Your task to perform on an android device: toggle notifications settings in the gmail app Image 0: 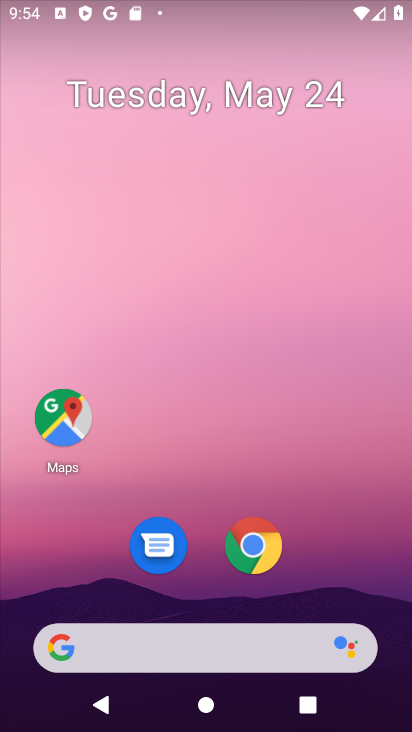
Step 0: drag from (210, 474) to (253, 0)
Your task to perform on an android device: toggle notifications settings in the gmail app Image 1: 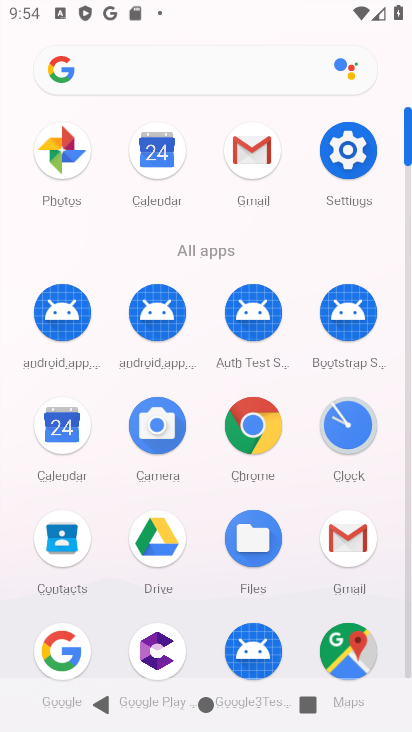
Step 1: click (246, 154)
Your task to perform on an android device: toggle notifications settings in the gmail app Image 2: 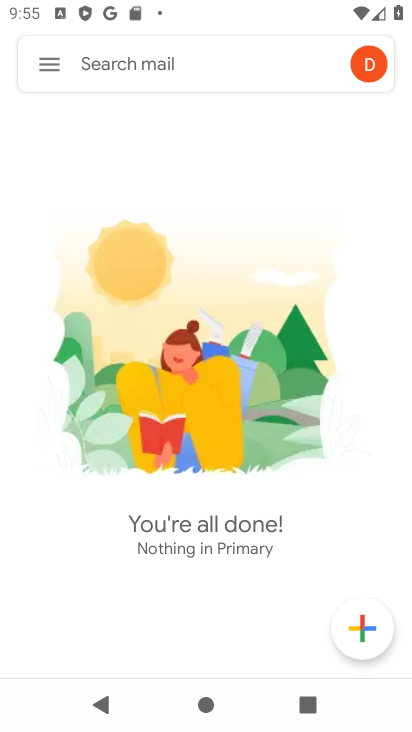
Step 2: click (53, 64)
Your task to perform on an android device: toggle notifications settings in the gmail app Image 3: 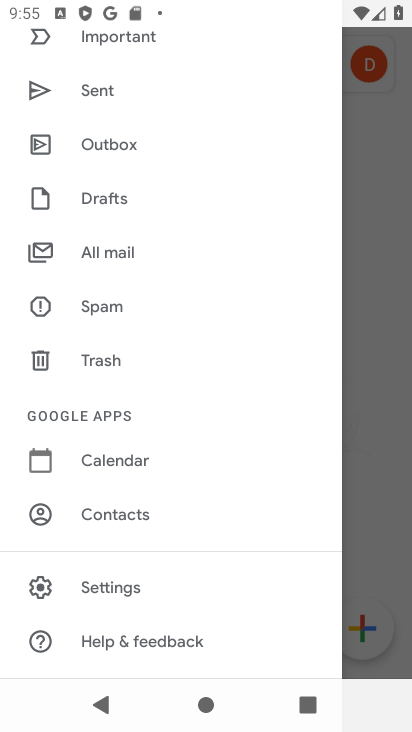
Step 3: click (130, 580)
Your task to perform on an android device: toggle notifications settings in the gmail app Image 4: 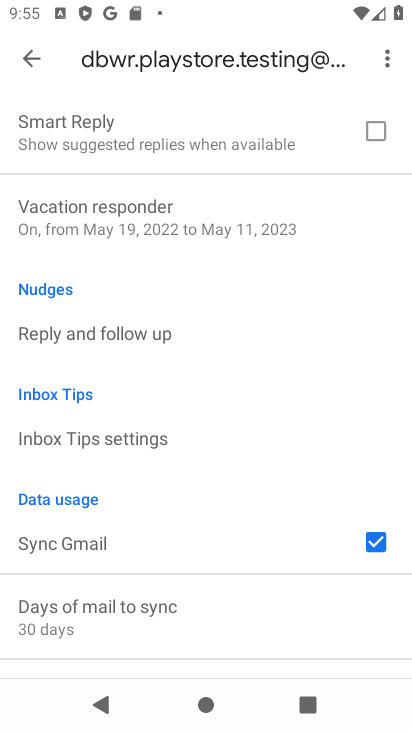
Step 4: drag from (246, 270) to (223, 704)
Your task to perform on an android device: toggle notifications settings in the gmail app Image 5: 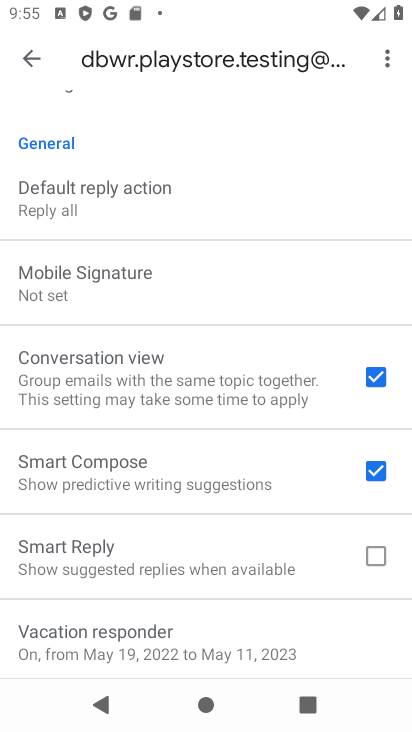
Step 5: drag from (209, 306) to (221, 605)
Your task to perform on an android device: toggle notifications settings in the gmail app Image 6: 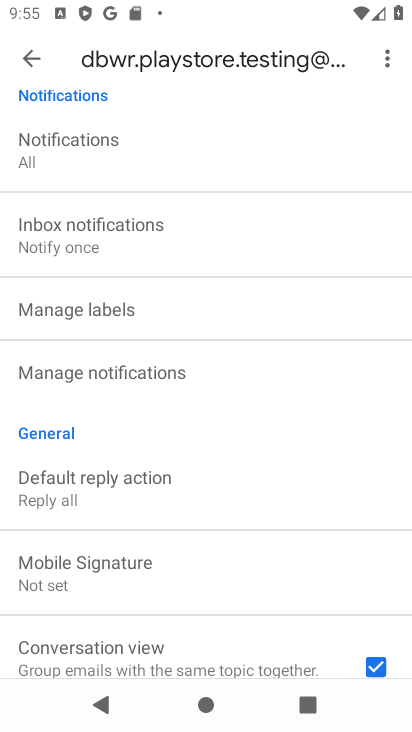
Step 6: click (213, 370)
Your task to perform on an android device: toggle notifications settings in the gmail app Image 7: 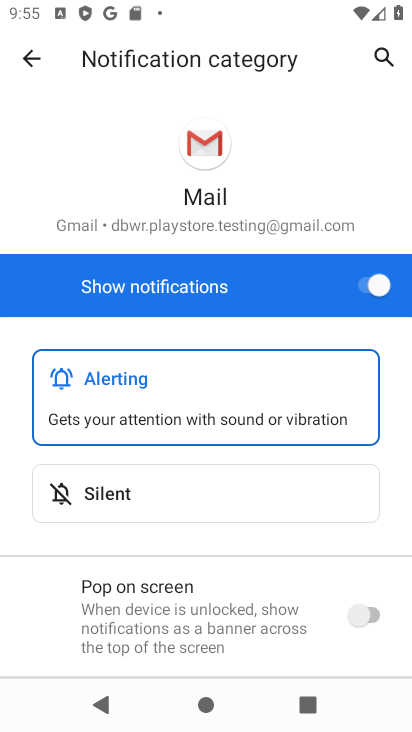
Step 7: click (365, 283)
Your task to perform on an android device: toggle notifications settings in the gmail app Image 8: 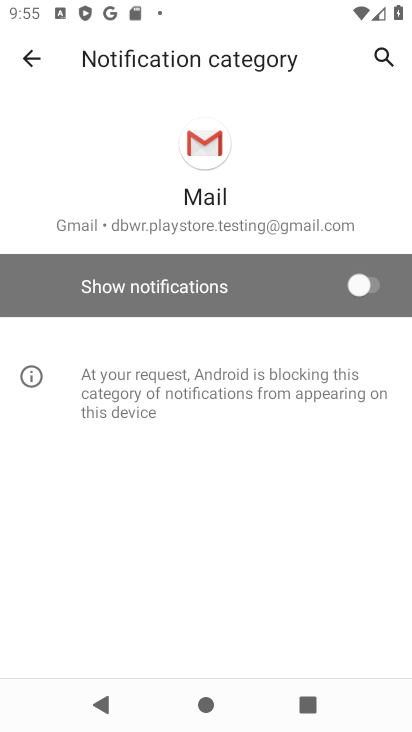
Step 8: task complete